Your task to perform on an android device: Go to sound settings Image 0: 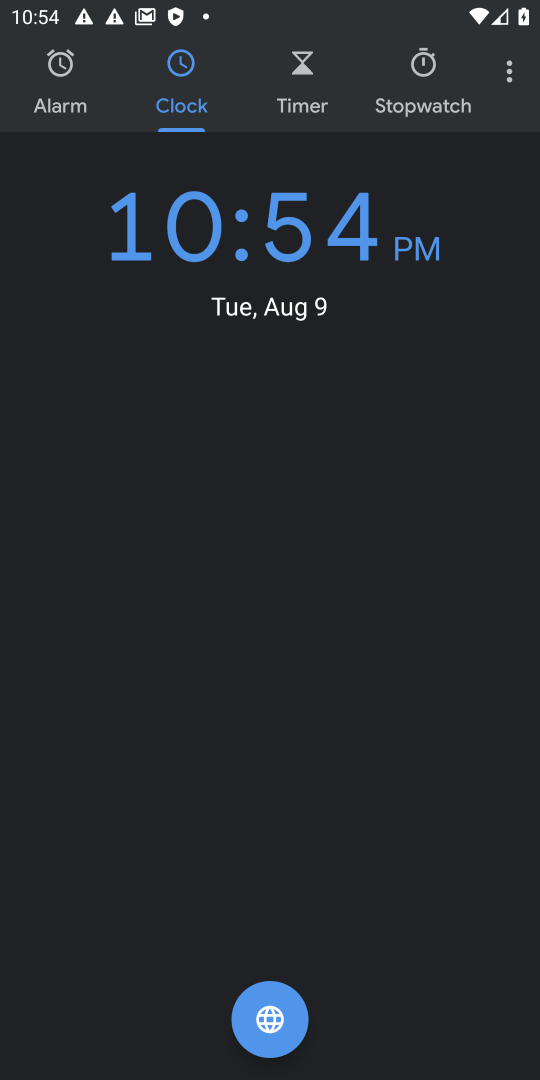
Step 0: press home button
Your task to perform on an android device: Go to sound settings Image 1: 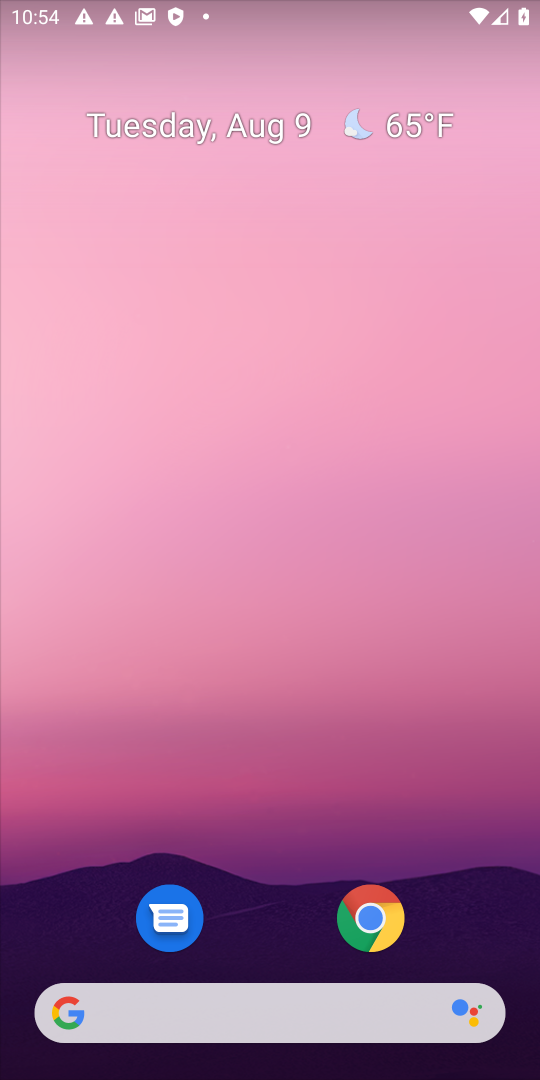
Step 1: drag from (264, 881) to (203, 65)
Your task to perform on an android device: Go to sound settings Image 2: 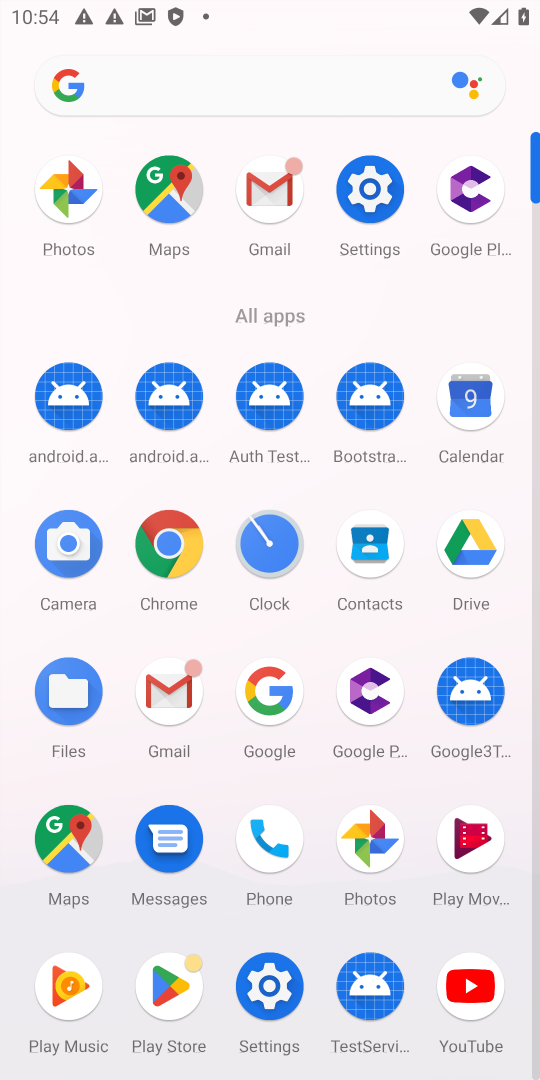
Step 2: click (275, 981)
Your task to perform on an android device: Go to sound settings Image 3: 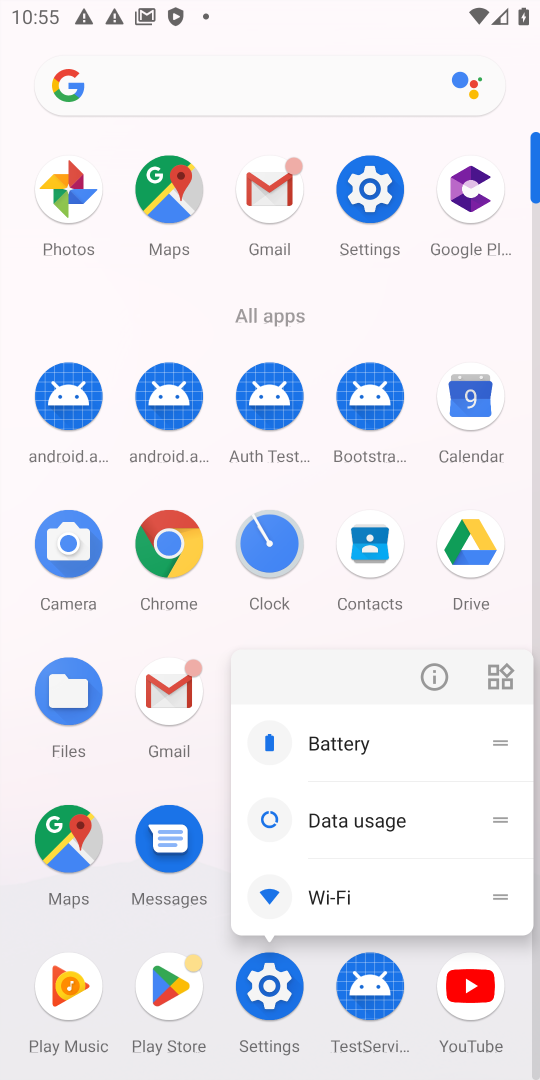
Step 3: click (272, 985)
Your task to perform on an android device: Go to sound settings Image 4: 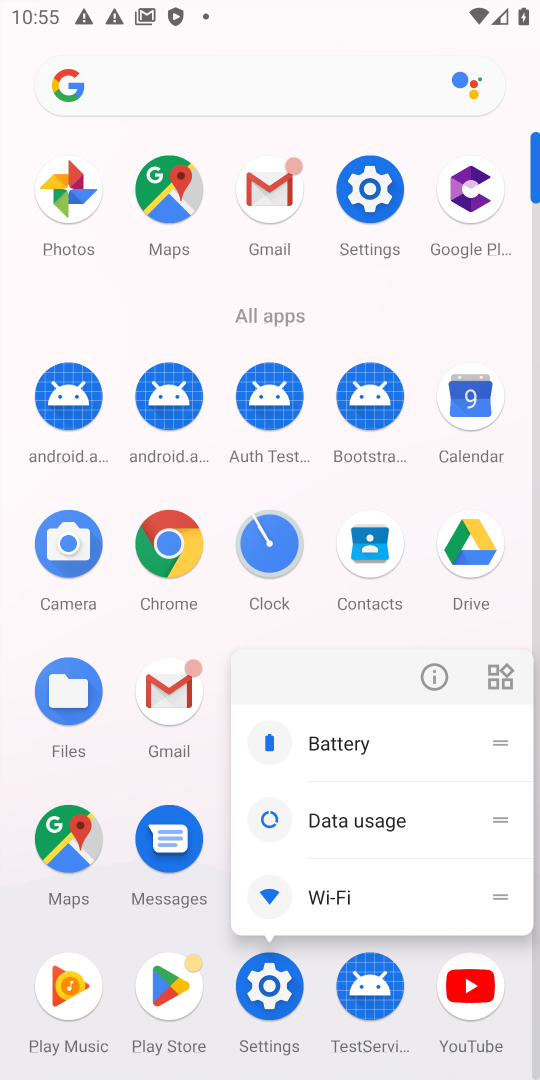
Step 4: click (272, 985)
Your task to perform on an android device: Go to sound settings Image 5: 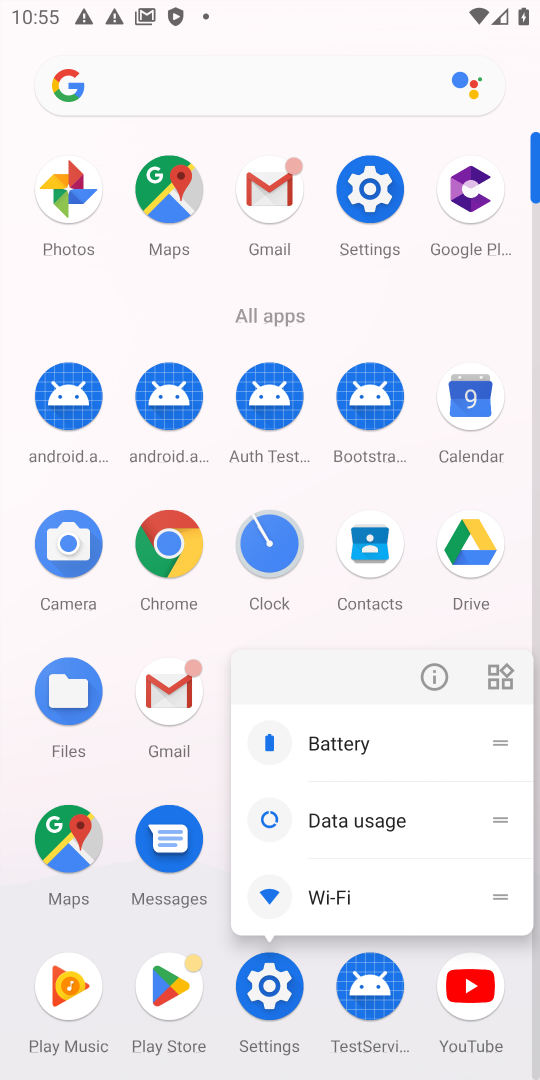
Step 5: click (207, 615)
Your task to perform on an android device: Go to sound settings Image 6: 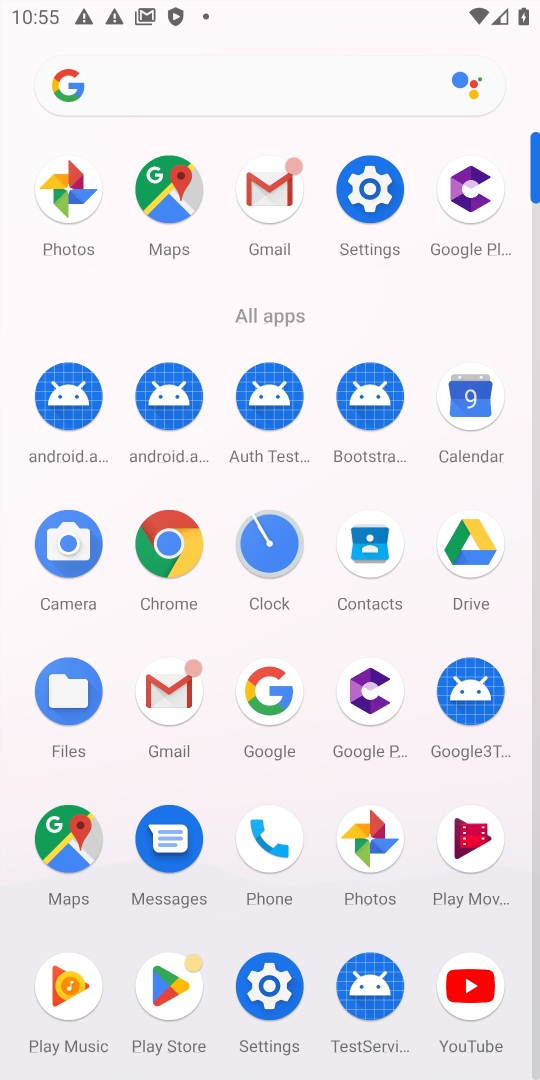
Step 6: click (213, 942)
Your task to perform on an android device: Go to sound settings Image 7: 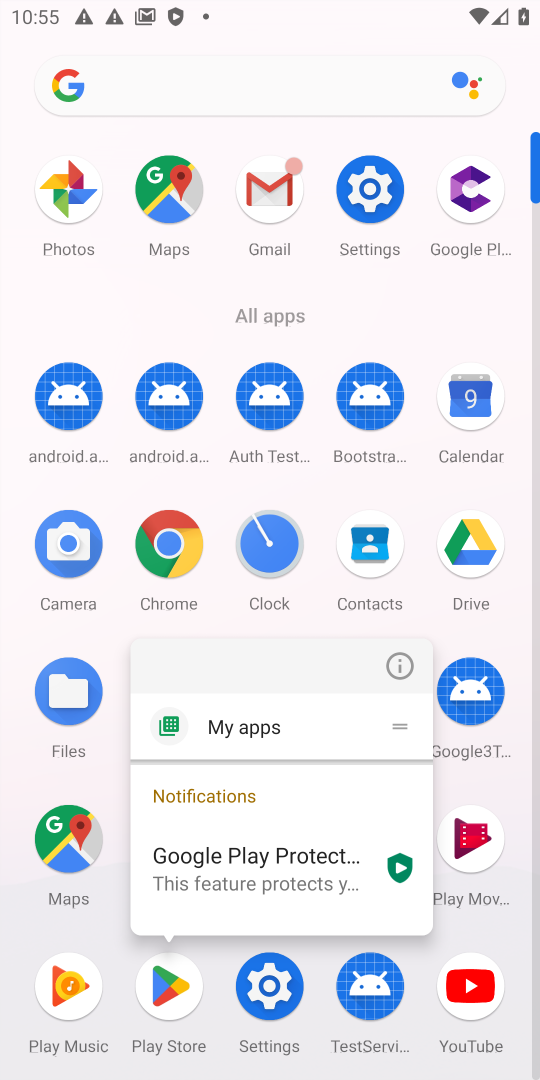
Step 7: click (278, 976)
Your task to perform on an android device: Go to sound settings Image 8: 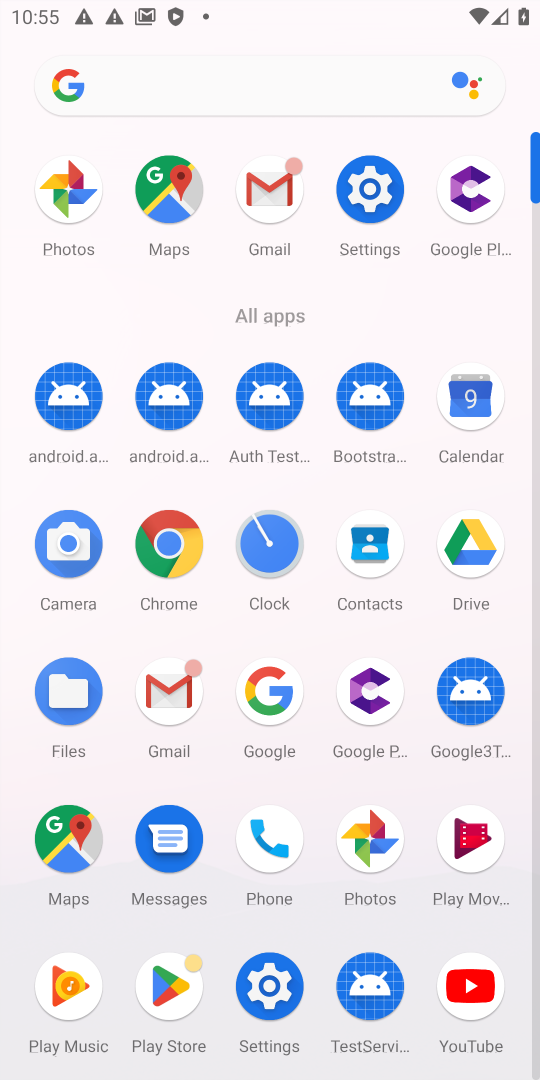
Step 8: click (255, 986)
Your task to perform on an android device: Go to sound settings Image 9: 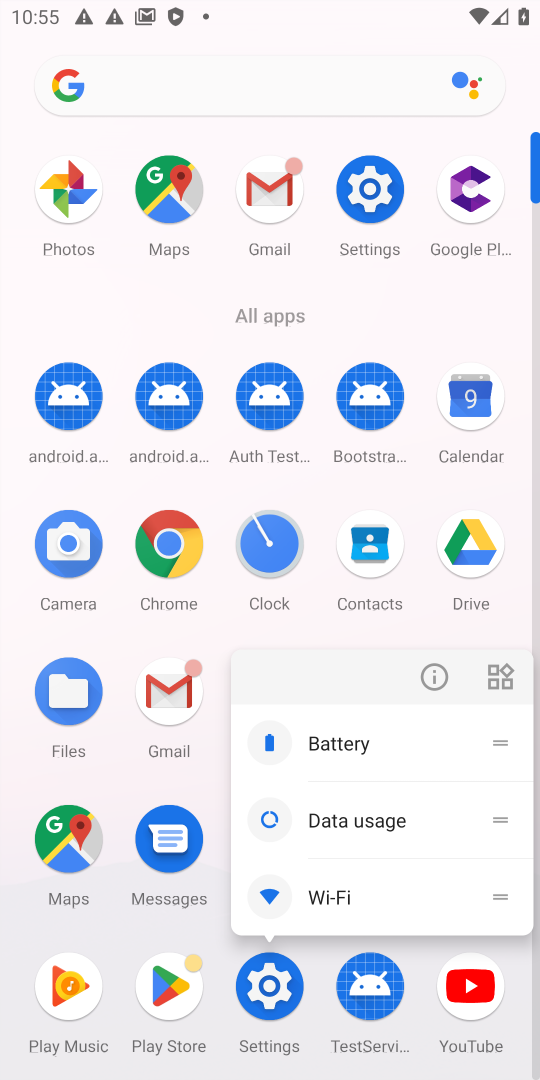
Step 9: click (263, 978)
Your task to perform on an android device: Go to sound settings Image 10: 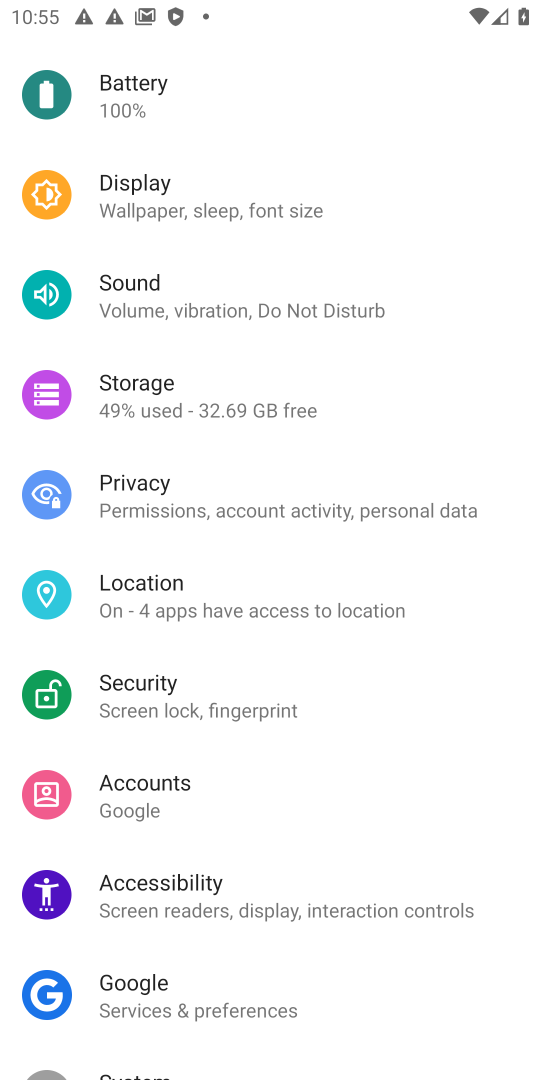
Step 10: click (202, 292)
Your task to perform on an android device: Go to sound settings Image 11: 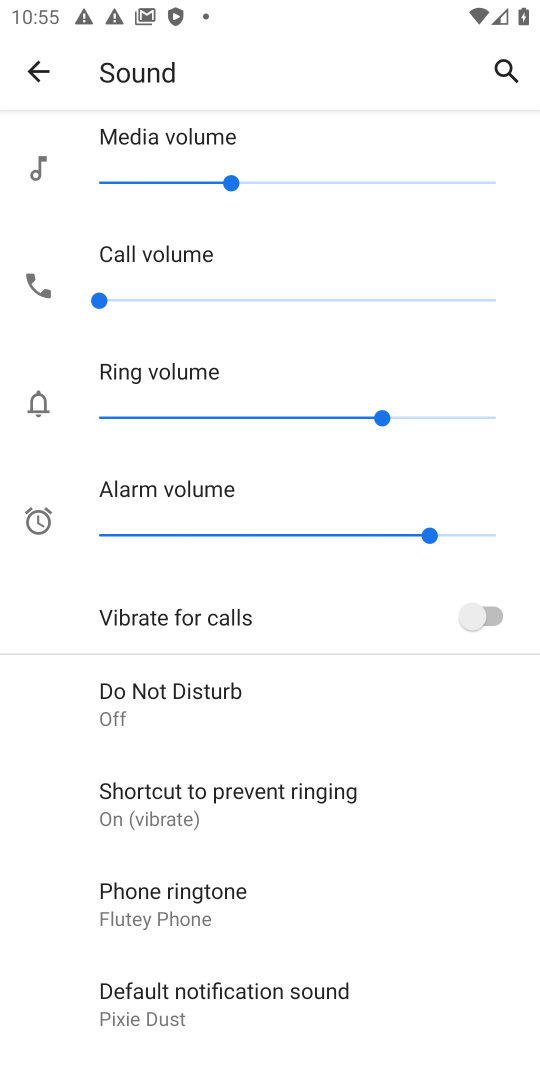
Step 11: task complete